Your task to perform on an android device: change the clock display to analog Image 0: 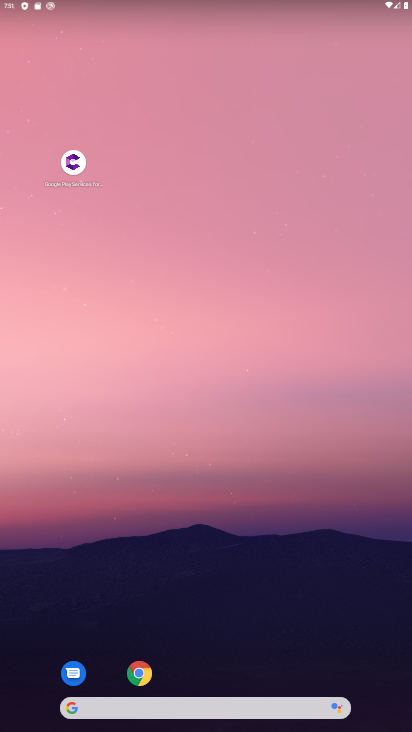
Step 0: click (182, 668)
Your task to perform on an android device: change the clock display to analog Image 1: 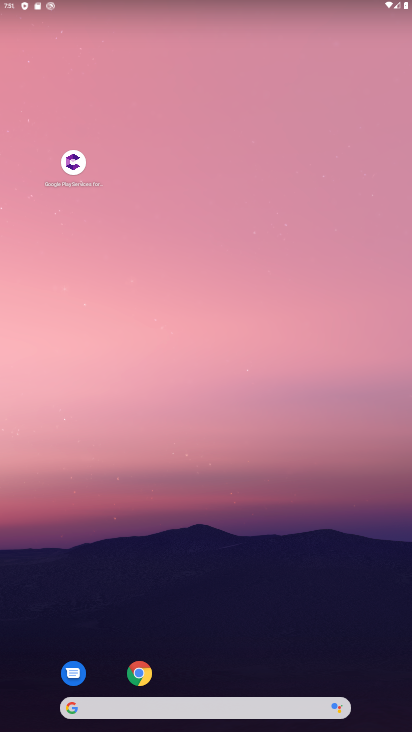
Step 1: drag from (206, 663) to (199, 127)
Your task to perform on an android device: change the clock display to analog Image 2: 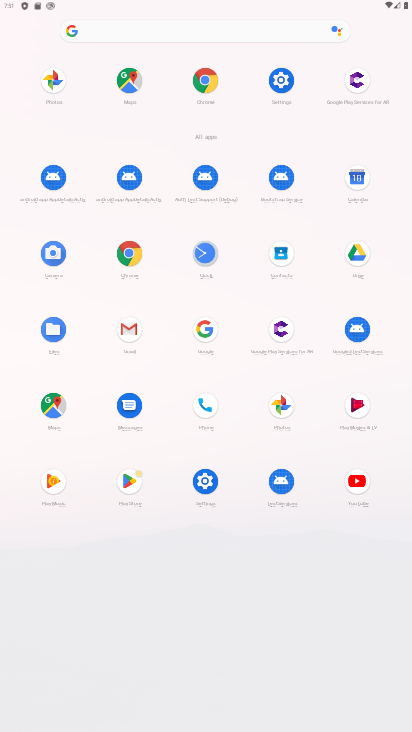
Step 2: click (202, 267)
Your task to perform on an android device: change the clock display to analog Image 3: 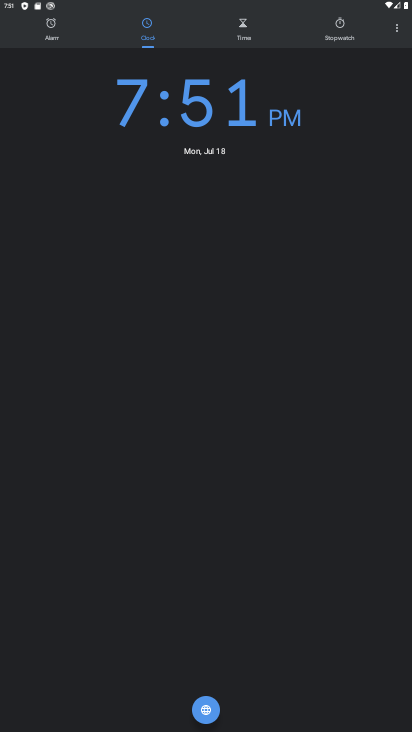
Step 3: click (396, 31)
Your task to perform on an android device: change the clock display to analog Image 4: 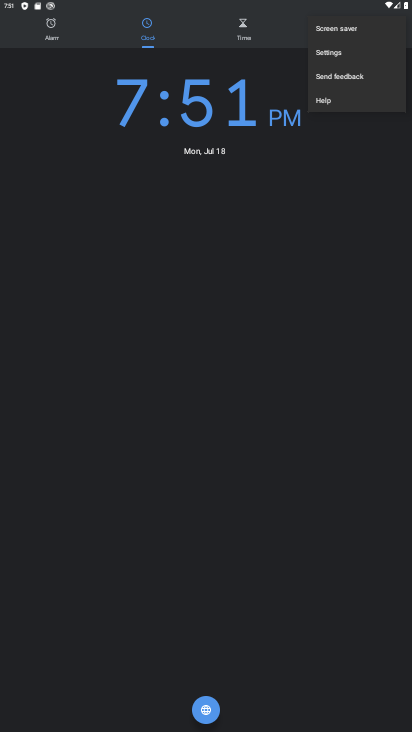
Step 4: click (342, 61)
Your task to perform on an android device: change the clock display to analog Image 5: 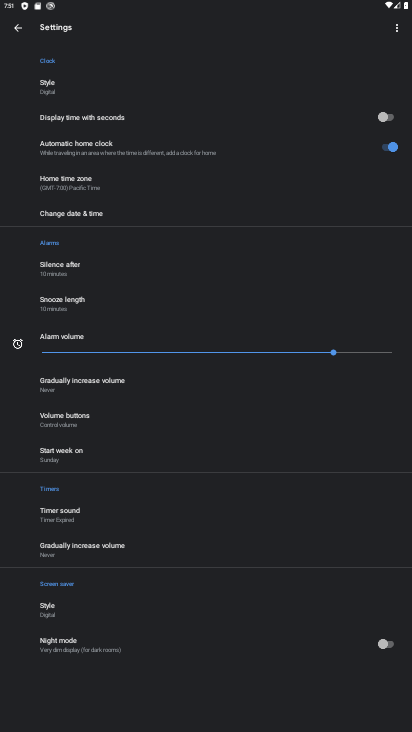
Step 5: click (53, 99)
Your task to perform on an android device: change the clock display to analog Image 6: 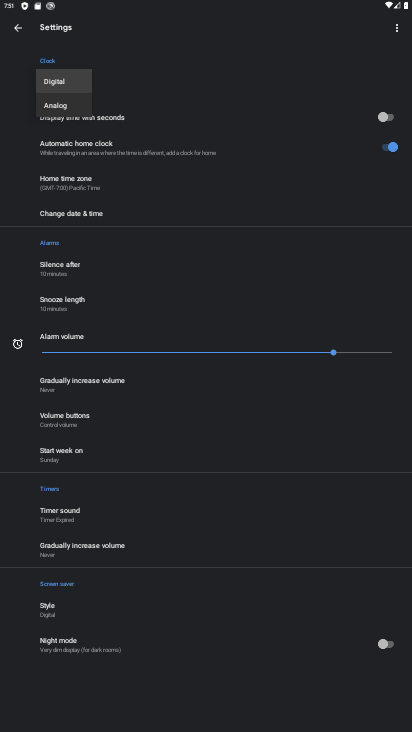
Step 6: click (61, 104)
Your task to perform on an android device: change the clock display to analog Image 7: 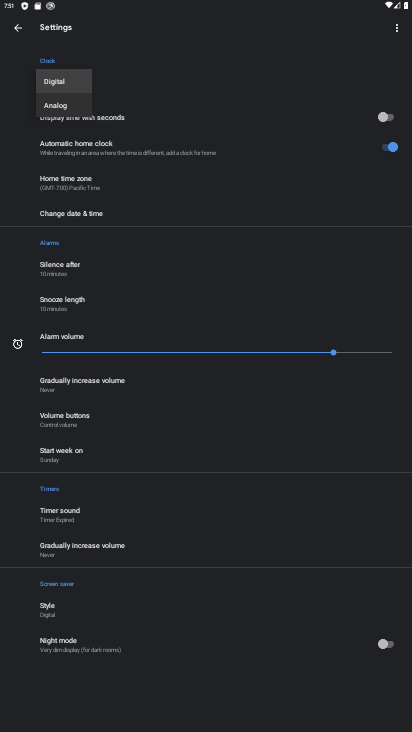
Step 7: click (61, 111)
Your task to perform on an android device: change the clock display to analog Image 8: 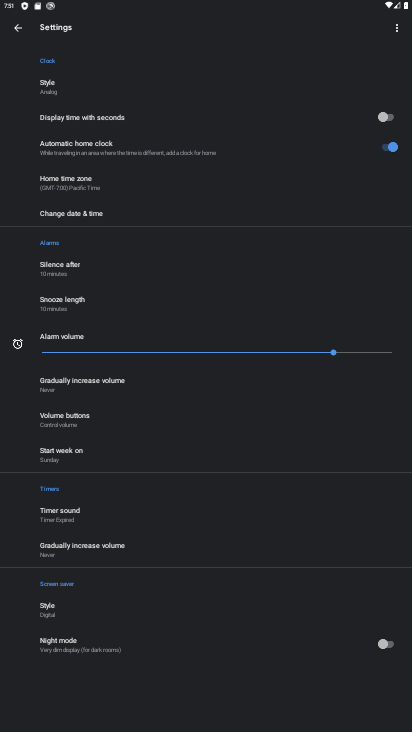
Step 8: task complete